Your task to perform on an android device: set default search engine in the chrome app Image 0: 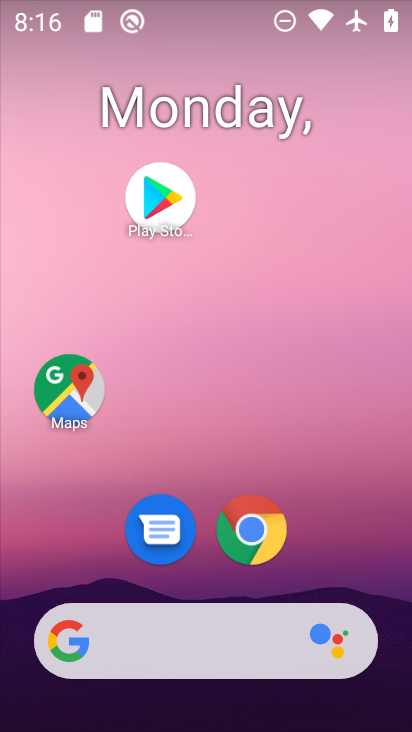
Step 0: click (256, 530)
Your task to perform on an android device: set default search engine in the chrome app Image 1: 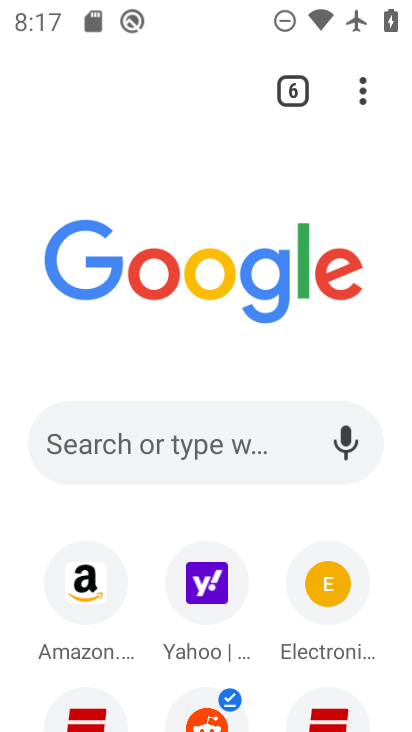
Step 1: click (362, 87)
Your task to perform on an android device: set default search engine in the chrome app Image 2: 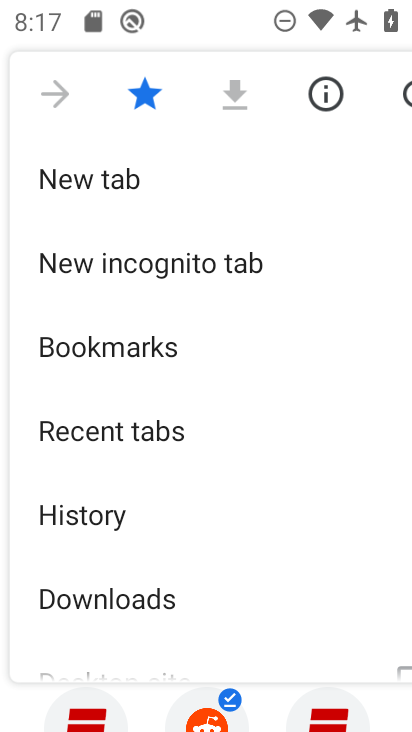
Step 2: drag from (288, 551) to (288, 174)
Your task to perform on an android device: set default search engine in the chrome app Image 3: 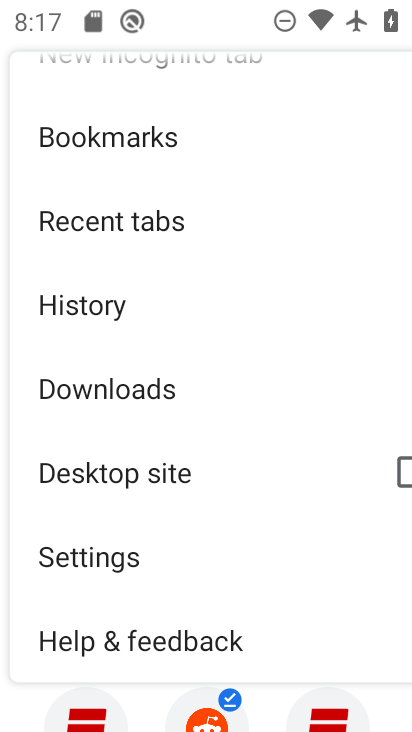
Step 3: click (94, 564)
Your task to perform on an android device: set default search engine in the chrome app Image 4: 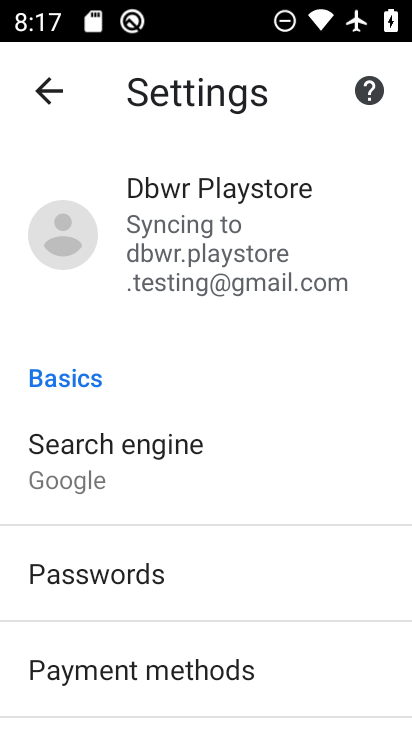
Step 4: click (142, 446)
Your task to perform on an android device: set default search engine in the chrome app Image 5: 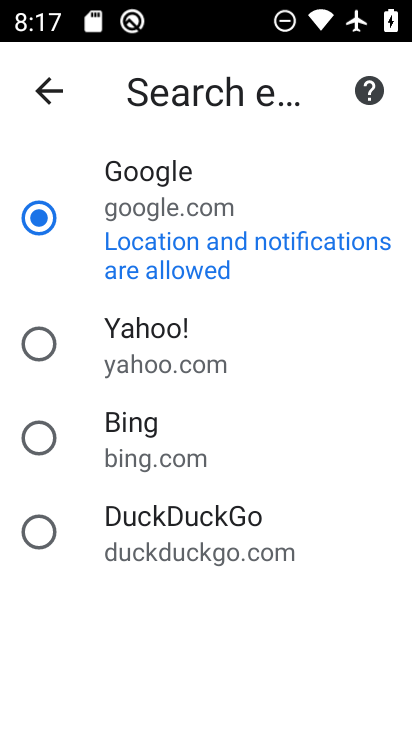
Step 5: click (36, 336)
Your task to perform on an android device: set default search engine in the chrome app Image 6: 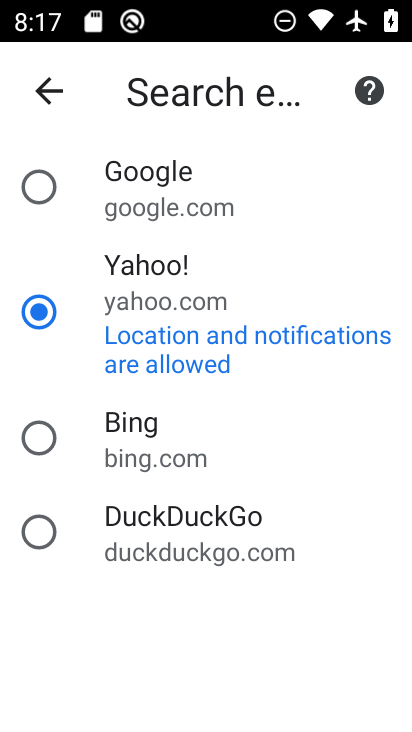
Step 6: task complete